Your task to perform on an android device: turn off picture-in-picture Image 0: 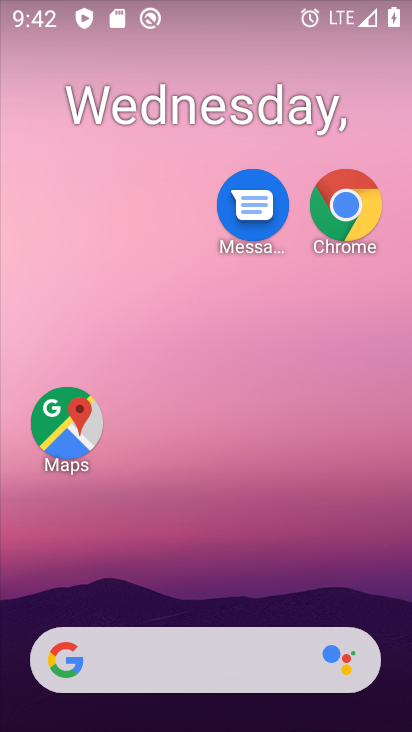
Step 0: drag from (174, 563) to (230, 151)
Your task to perform on an android device: turn off picture-in-picture Image 1: 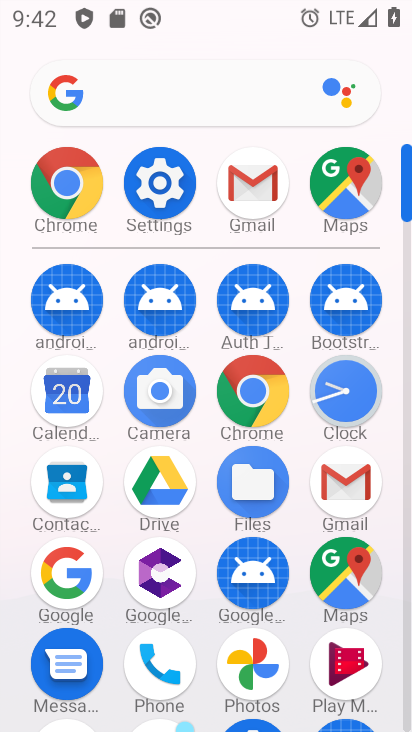
Step 1: click (147, 181)
Your task to perform on an android device: turn off picture-in-picture Image 2: 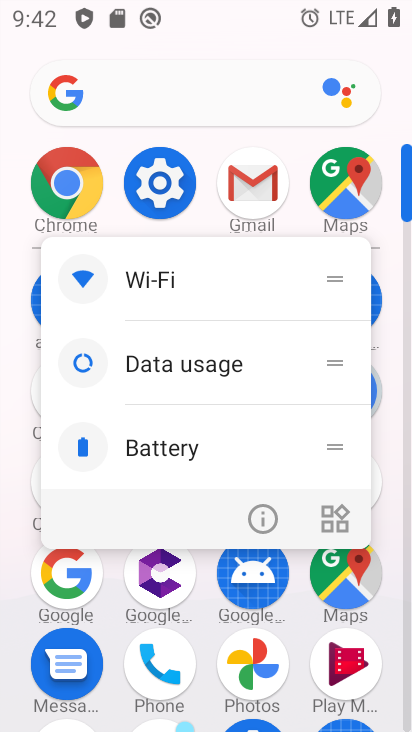
Step 2: click (241, 518)
Your task to perform on an android device: turn off picture-in-picture Image 3: 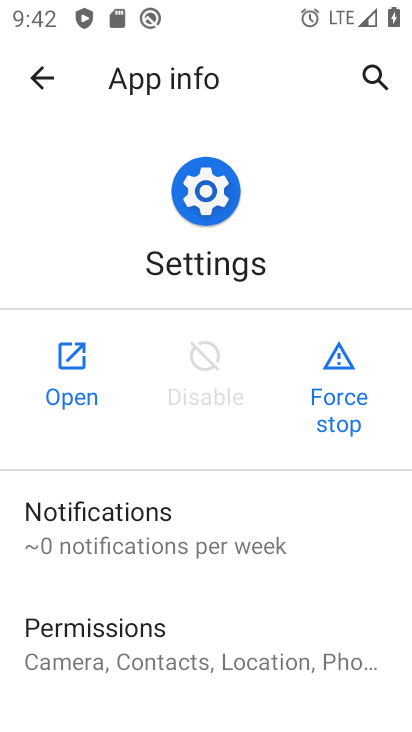
Step 3: click (85, 366)
Your task to perform on an android device: turn off picture-in-picture Image 4: 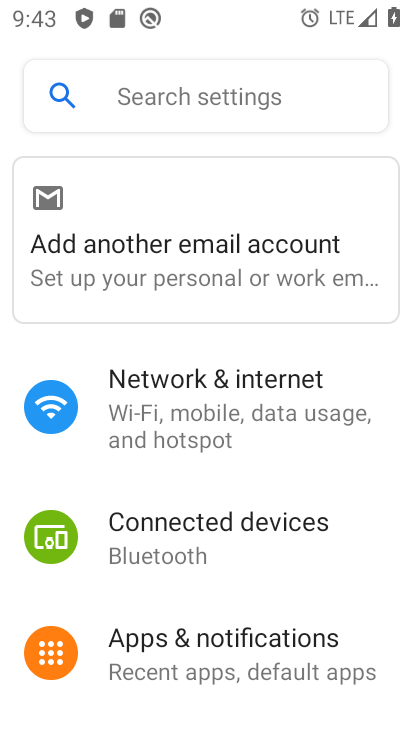
Step 4: drag from (212, 637) to (358, 114)
Your task to perform on an android device: turn off picture-in-picture Image 5: 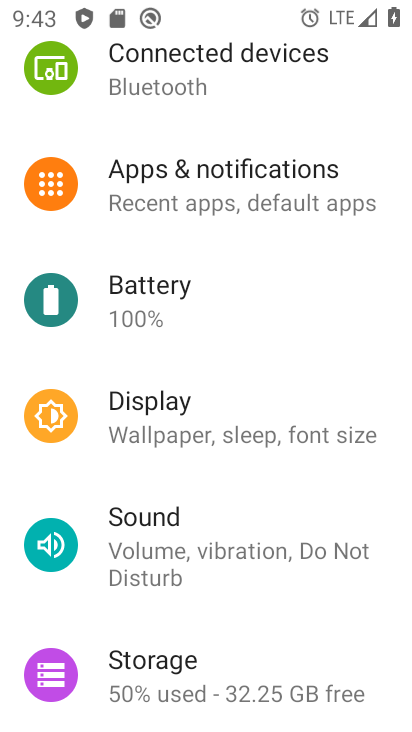
Step 5: click (196, 190)
Your task to perform on an android device: turn off picture-in-picture Image 6: 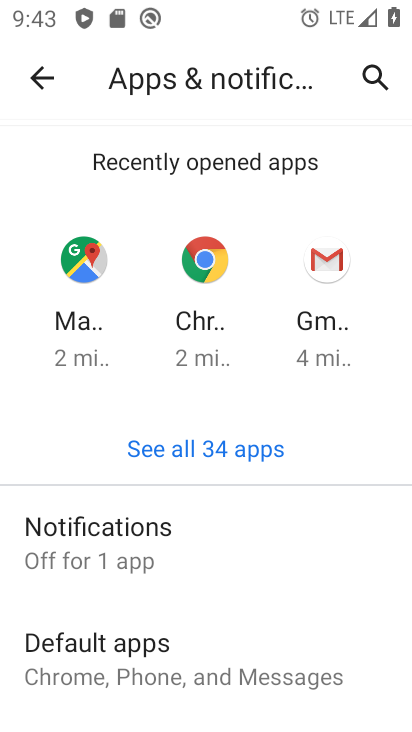
Step 6: drag from (242, 661) to (377, 34)
Your task to perform on an android device: turn off picture-in-picture Image 7: 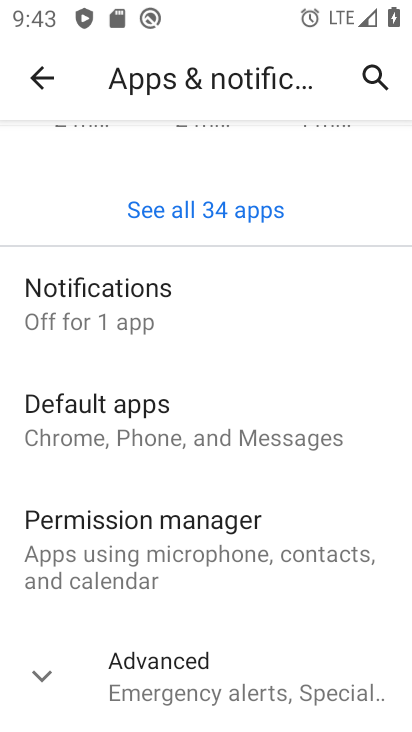
Step 7: click (173, 684)
Your task to perform on an android device: turn off picture-in-picture Image 8: 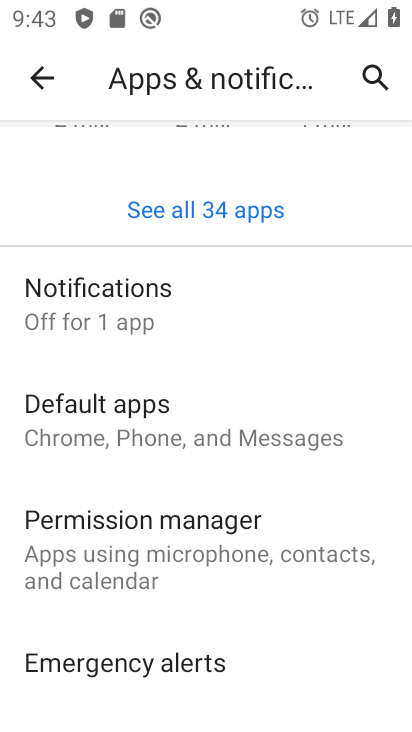
Step 8: drag from (165, 530) to (349, 1)
Your task to perform on an android device: turn off picture-in-picture Image 9: 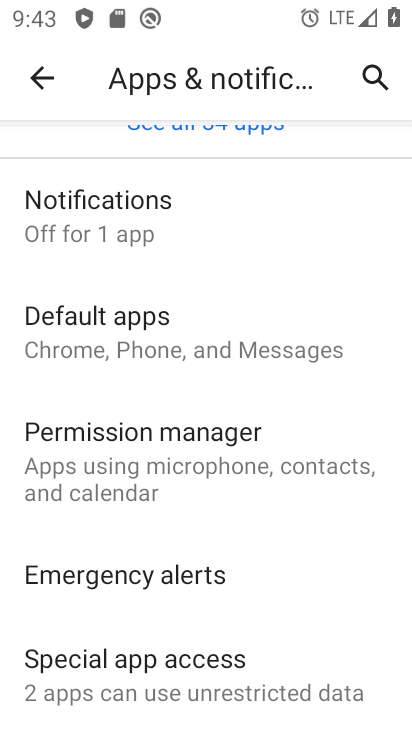
Step 9: drag from (203, 630) to (213, 129)
Your task to perform on an android device: turn off picture-in-picture Image 10: 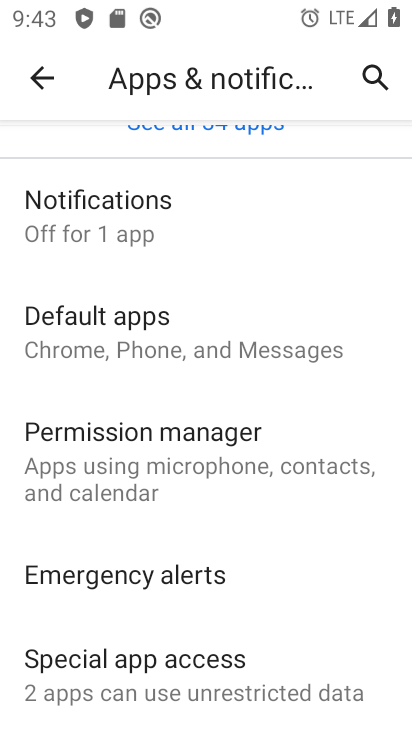
Step 10: click (208, 677)
Your task to perform on an android device: turn off picture-in-picture Image 11: 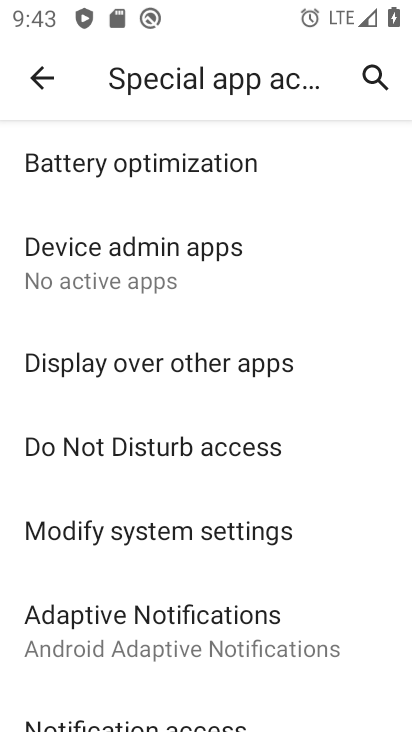
Step 11: drag from (233, 649) to (234, 41)
Your task to perform on an android device: turn off picture-in-picture Image 12: 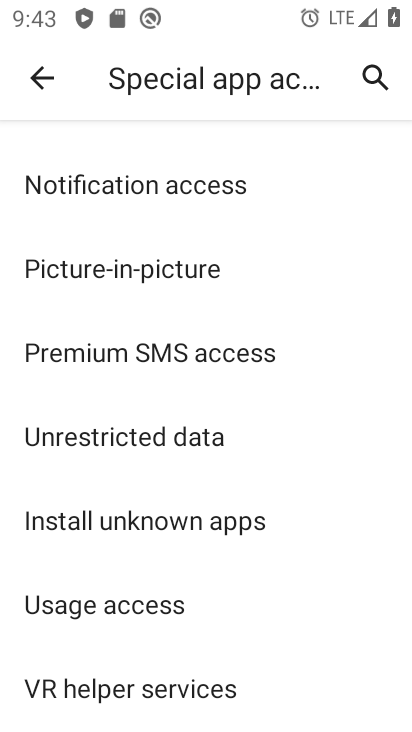
Step 12: click (163, 267)
Your task to perform on an android device: turn off picture-in-picture Image 13: 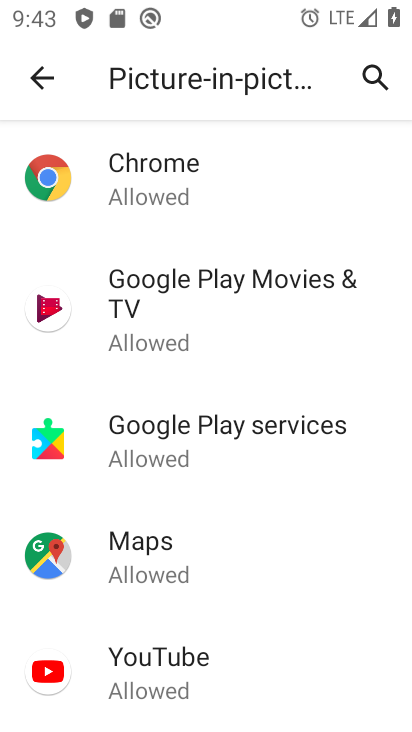
Step 13: task complete